Your task to perform on an android device: Open settings on Google Maps Image 0: 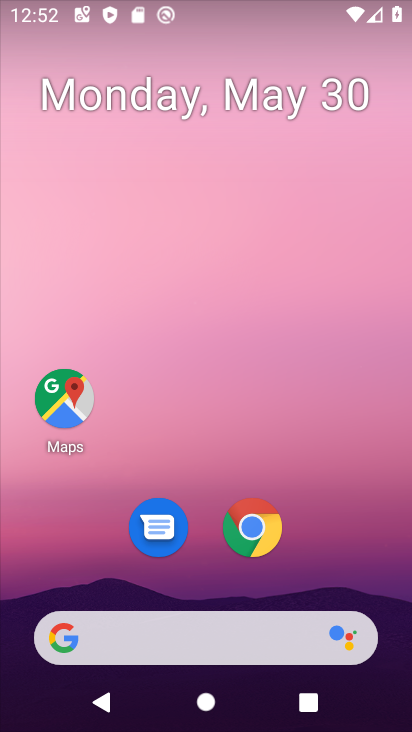
Step 0: drag from (216, 490) to (233, 139)
Your task to perform on an android device: Open settings on Google Maps Image 1: 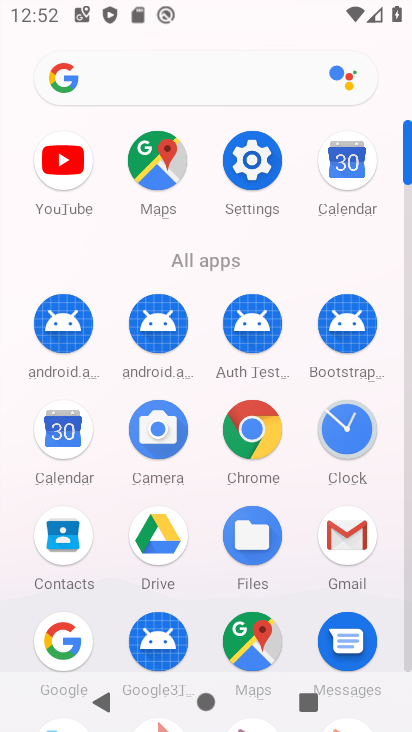
Step 1: click (256, 625)
Your task to perform on an android device: Open settings on Google Maps Image 2: 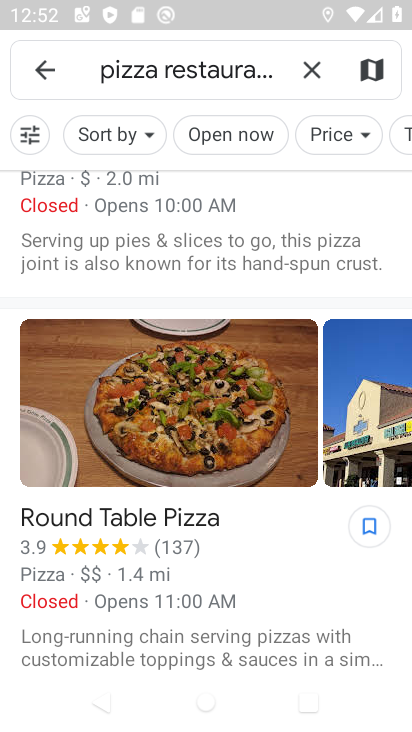
Step 2: drag from (244, 613) to (242, 153)
Your task to perform on an android device: Open settings on Google Maps Image 3: 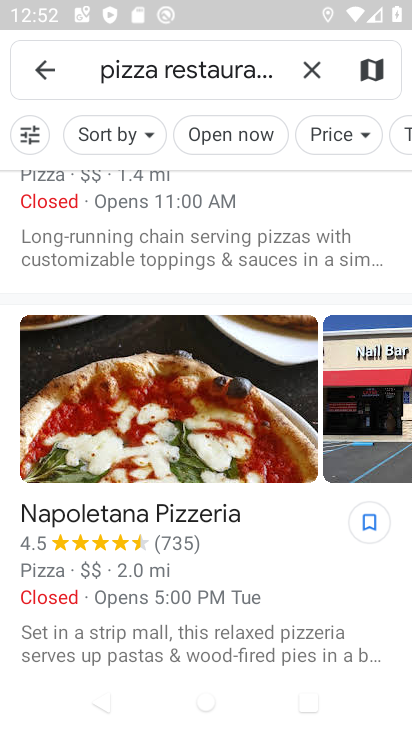
Step 3: click (44, 77)
Your task to perform on an android device: Open settings on Google Maps Image 4: 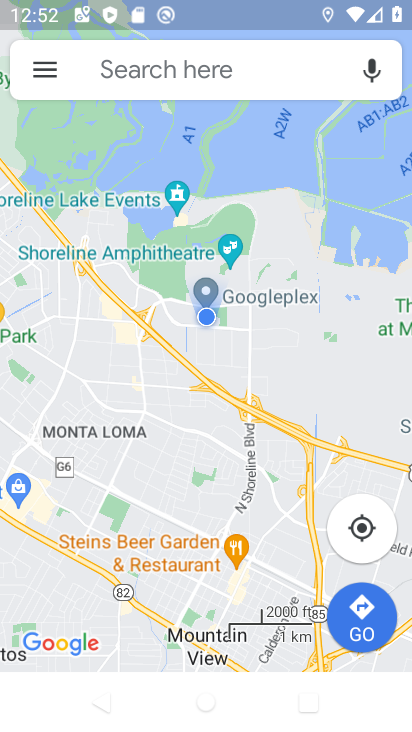
Step 4: click (47, 75)
Your task to perform on an android device: Open settings on Google Maps Image 5: 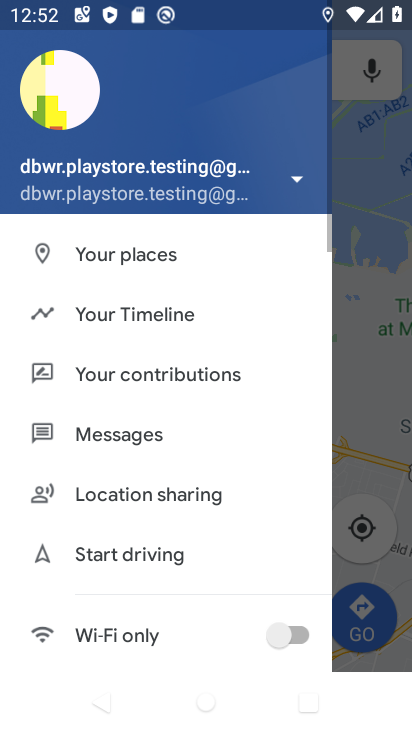
Step 5: drag from (167, 557) to (164, 87)
Your task to perform on an android device: Open settings on Google Maps Image 6: 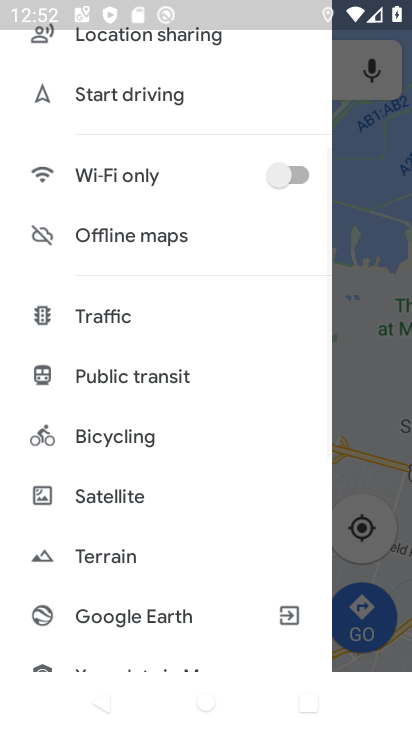
Step 6: drag from (133, 529) to (175, 48)
Your task to perform on an android device: Open settings on Google Maps Image 7: 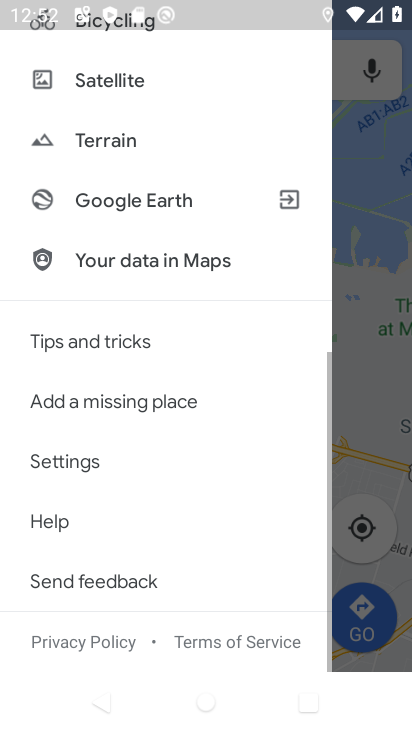
Step 7: click (73, 456)
Your task to perform on an android device: Open settings on Google Maps Image 8: 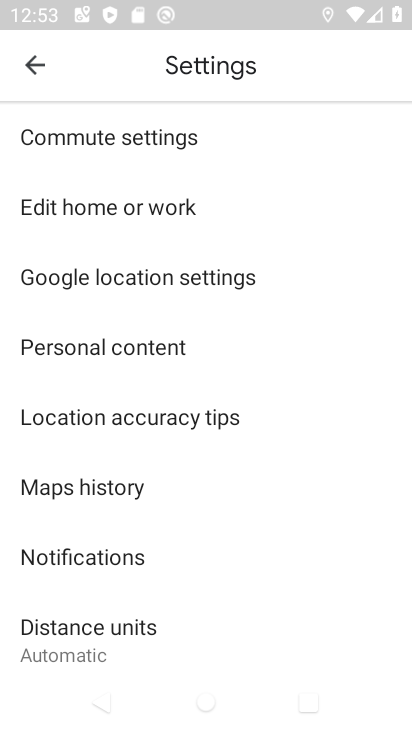
Step 8: task complete